Your task to perform on an android device: Show me the alarms in the clock app Image 0: 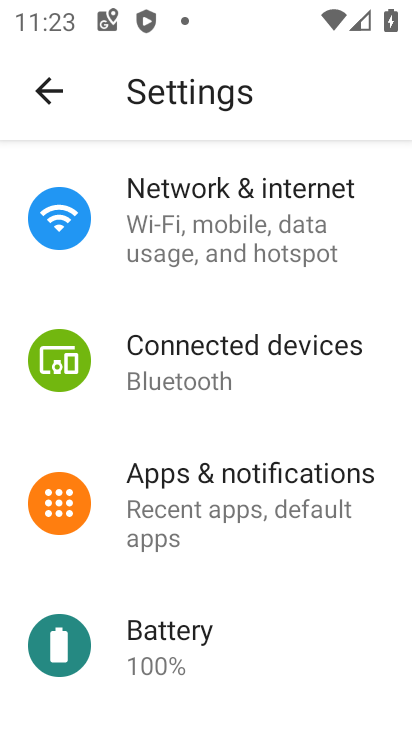
Step 0: press home button
Your task to perform on an android device: Show me the alarms in the clock app Image 1: 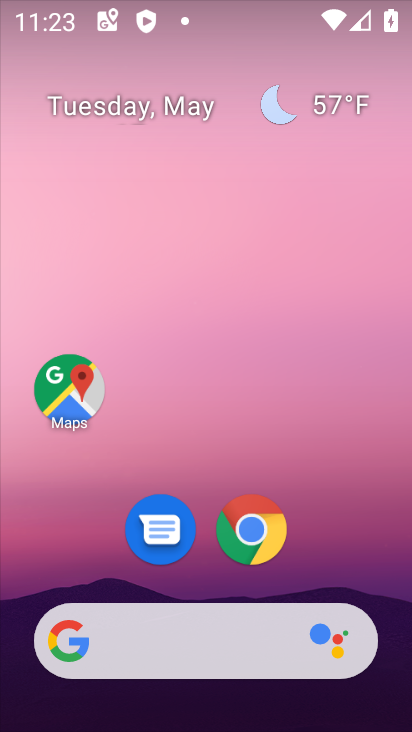
Step 1: drag from (248, 573) to (405, 36)
Your task to perform on an android device: Show me the alarms in the clock app Image 2: 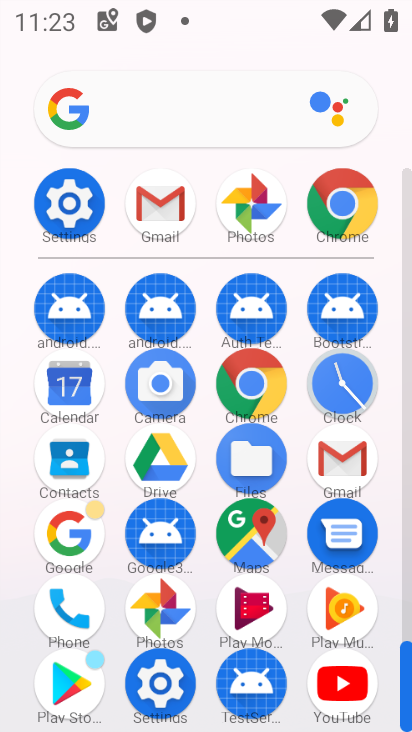
Step 2: click (336, 402)
Your task to perform on an android device: Show me the alarms in the clock app Image 3: 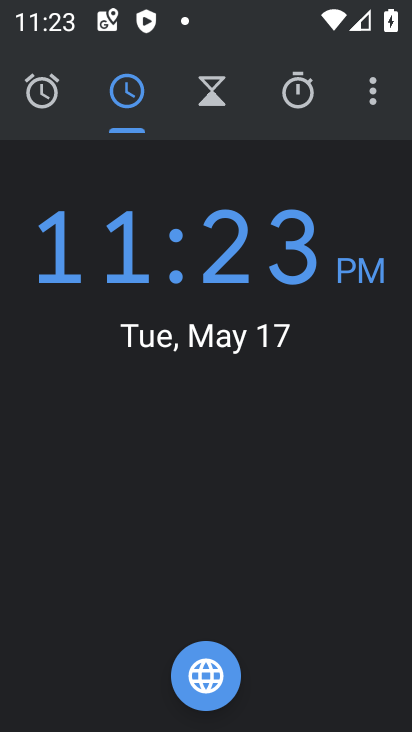
Step 3: click (55, 73)
Your task to perform on an android device: Show me the alarms in the clock app Image 4: 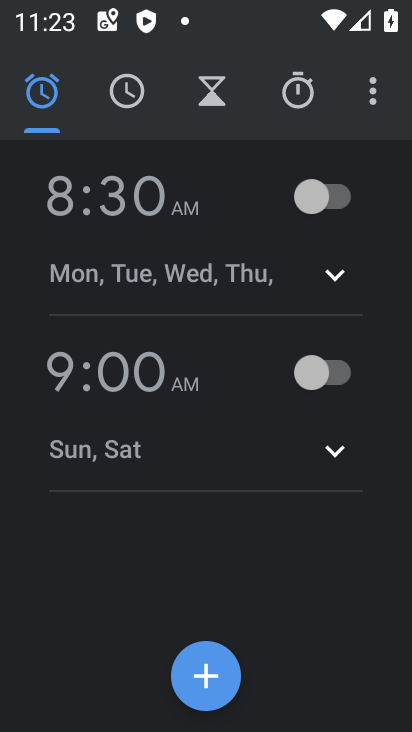
Step 4: task complete